Your task to perform on an android device: What's on my calendar today? Image 0: 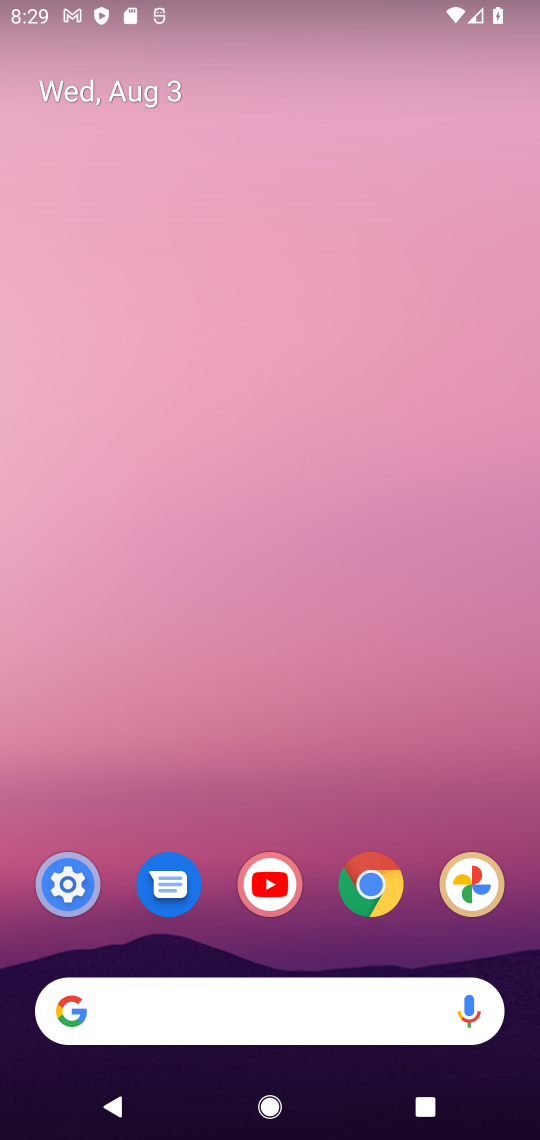
Step 0: drag from (137, 603) to (257, 36)
Your task to perform on an android device: What's on my calendar today? Image 1: 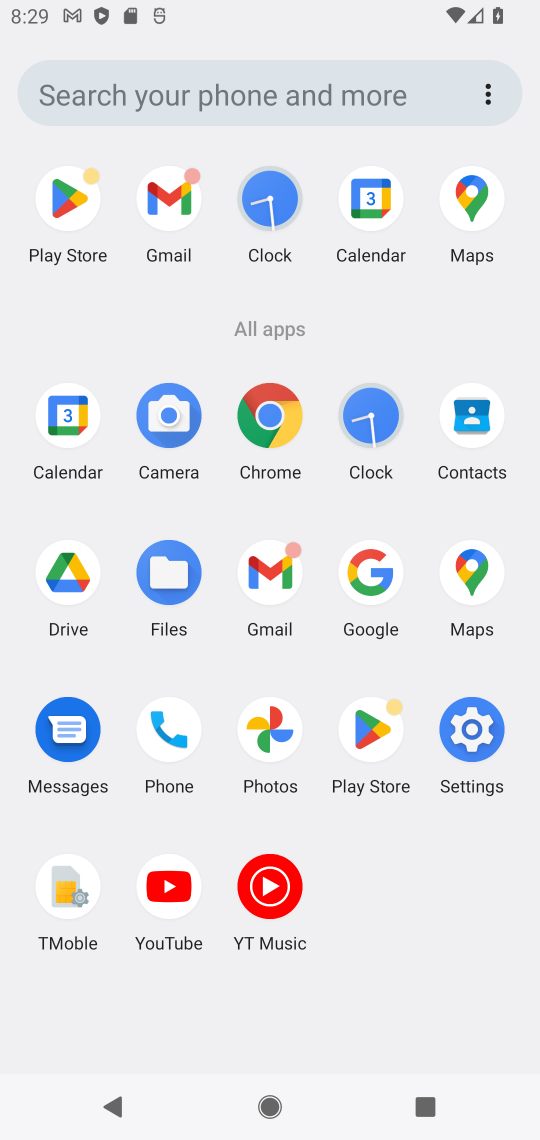
Step 1: click (362, 198)
Your task to perform on an android device: What's on my calendar today? Image 2: 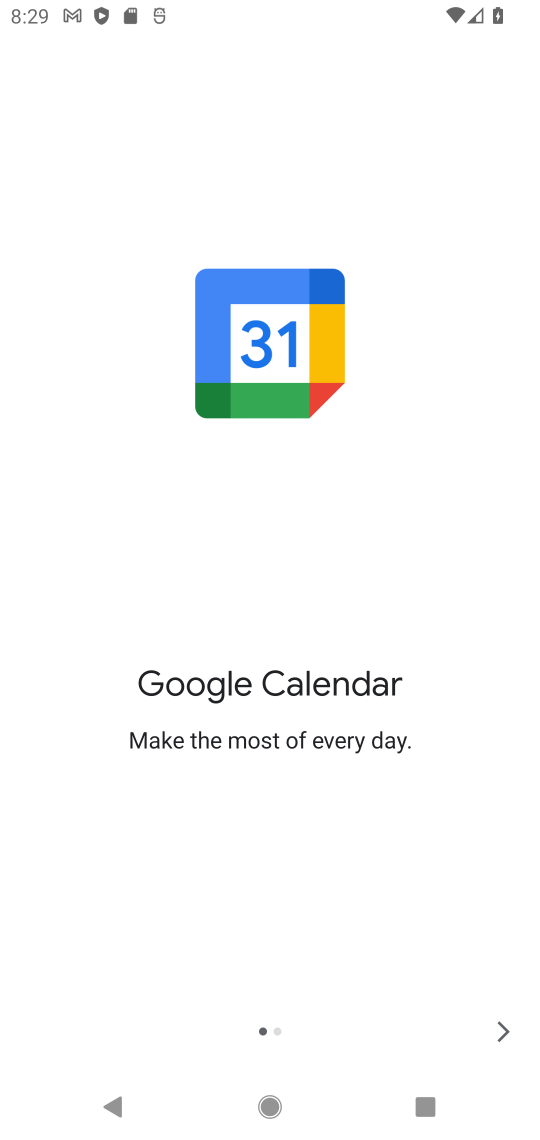
Step 2: click (488, 1025)
Your task to perform on an android device: What's on my calendar today? Image 3: 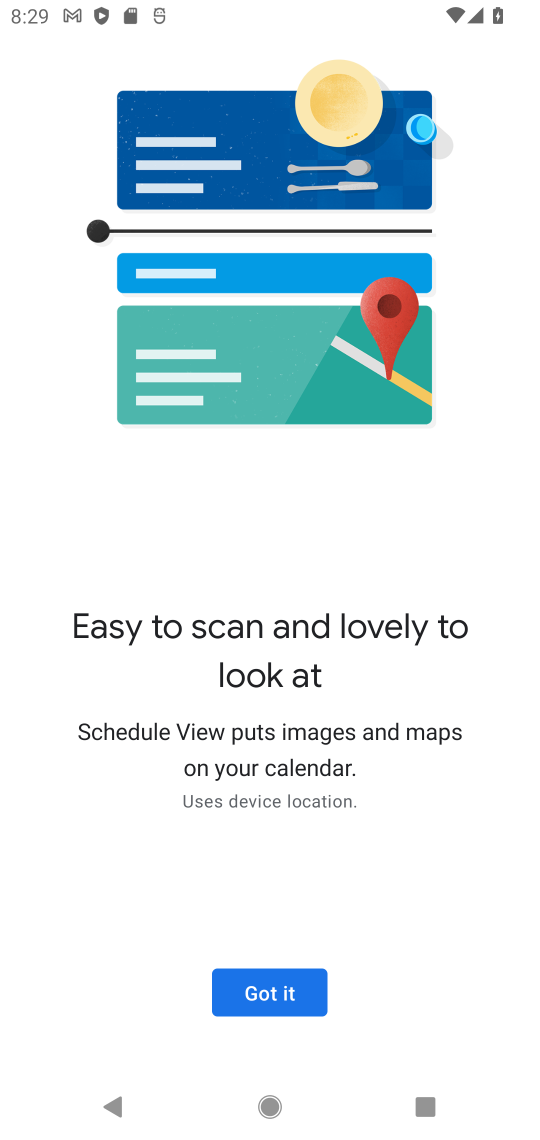
Step 3: click (233, 995)
Your task to perform on an android device: What's on my calendar today? Image 4: 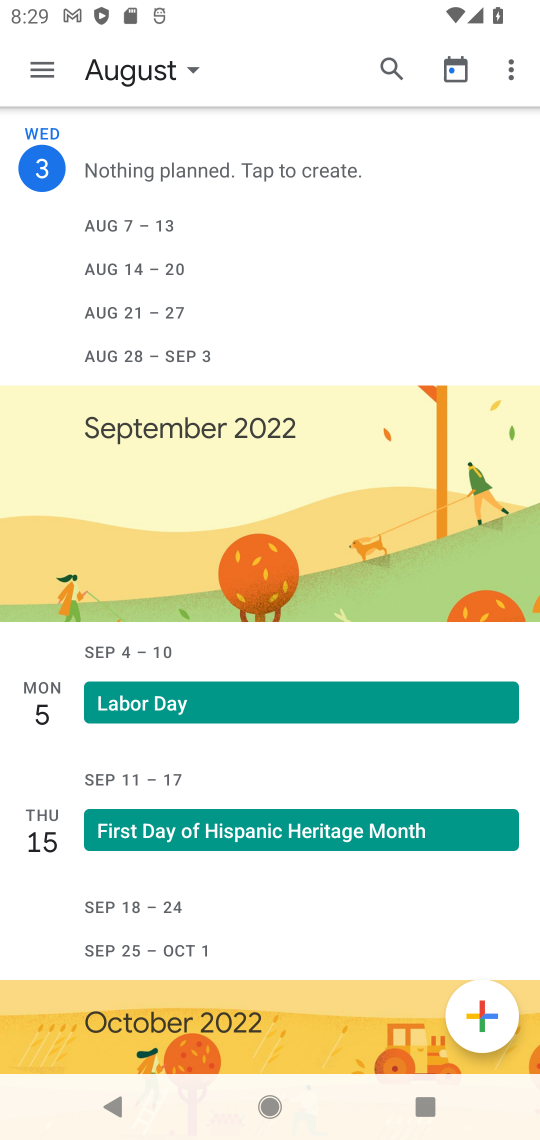
Step 4: click (198, 74)
Your task to perform on an android device: What's on my calendar today? Image 5: 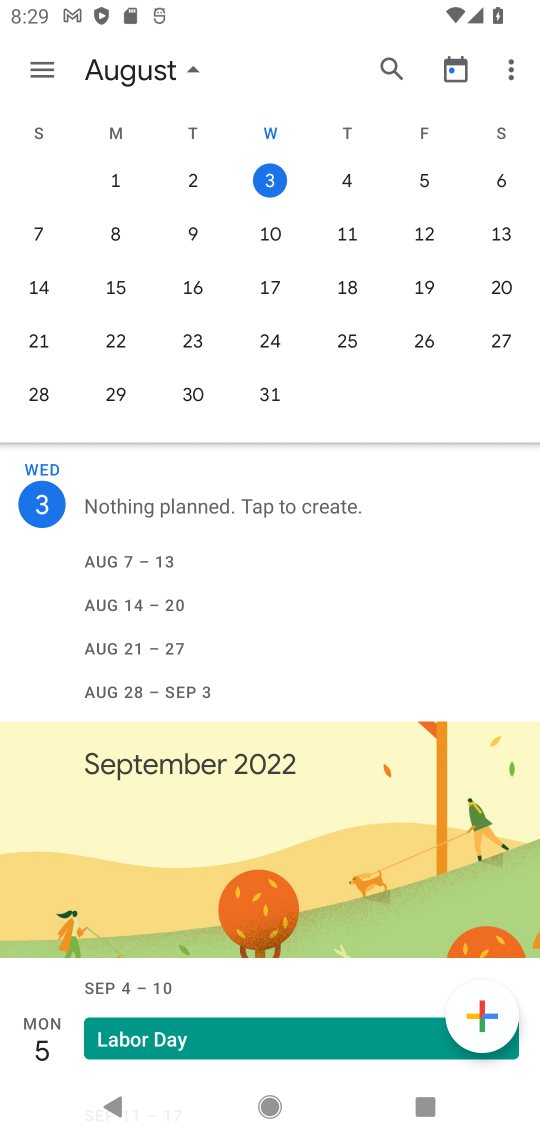
Step 5: task complete